Your task to perform on an android device: What is the recent news? Image 0: 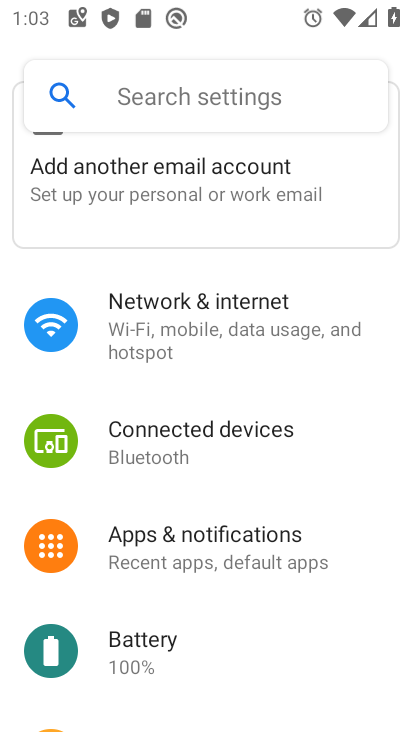
Step 0: press home button
Your task to perform on an android device: What is the recent news? Image 1: 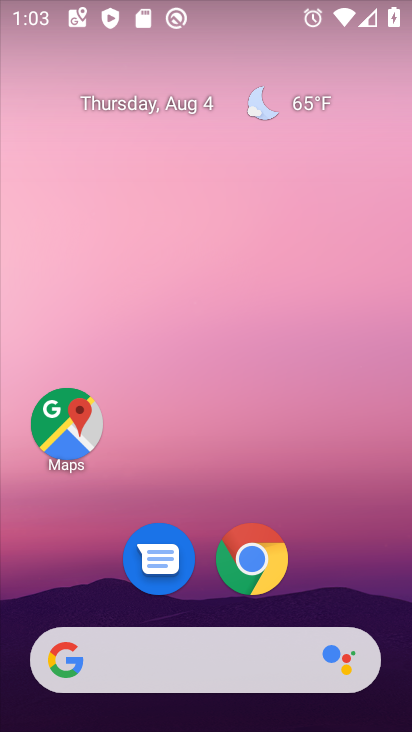
Step 1: drag from (170, 658) to (232, 117)
Your task to perform on an android device: What is the recent news? Image 2: 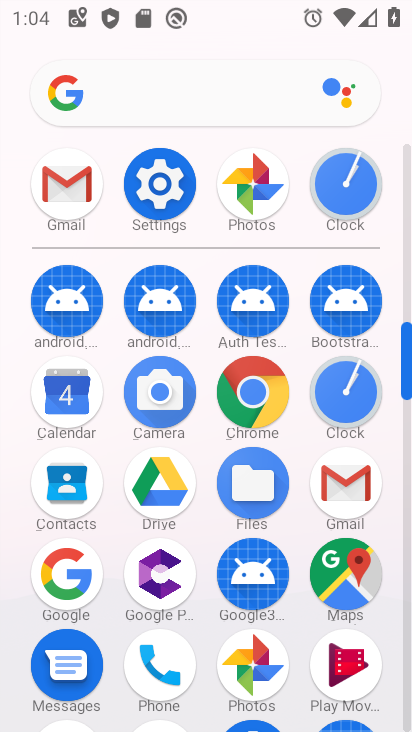
Step 2: click (66, 576)
Your task to perform on an android device: What is the recent news? Image 3: 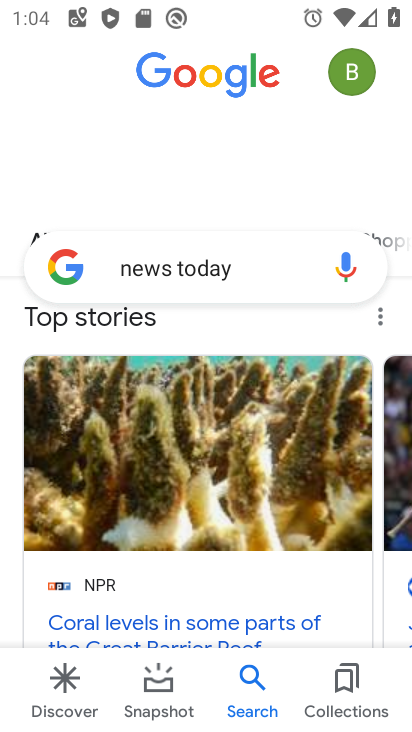
Step 3: click (238, 264)
Your task to perform on an android device: What is the recent news? Image 4: 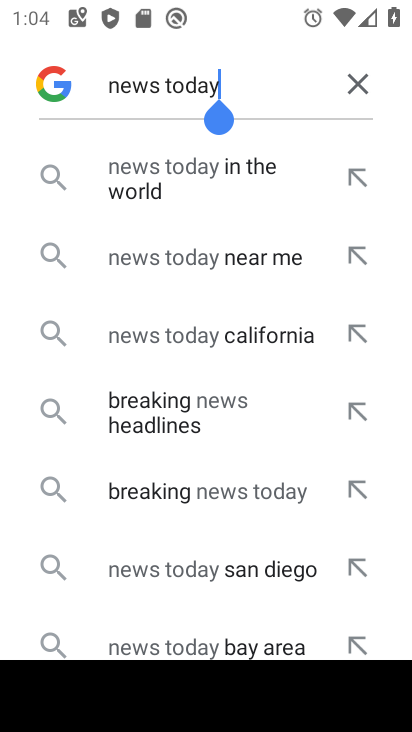
Step 4: click (351, 83)
Your task to perform on an android device: What is the recent news? Image 5: 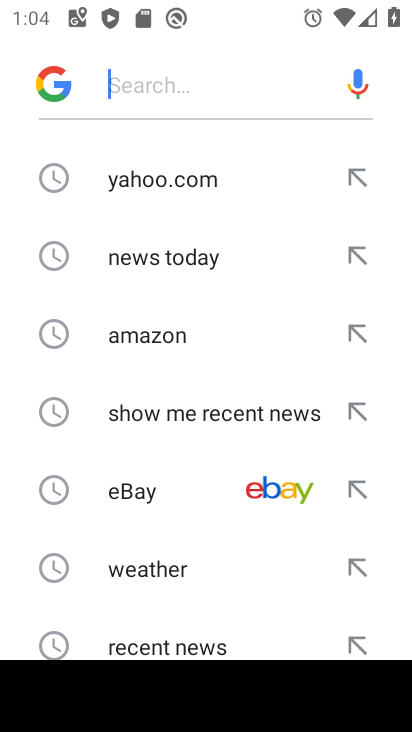
Step 5: type "recent news"
Your task to perform on an android device: What is the recent news? Image 6: 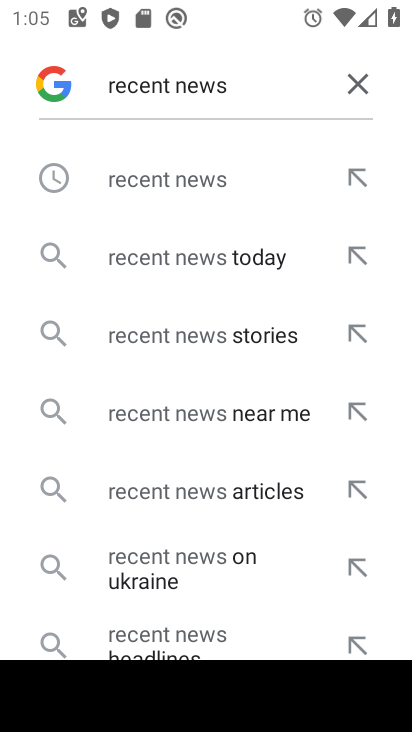
Step 6: click (195, 179)
Your task to perform on an android device: What is the recent news? Image 7: 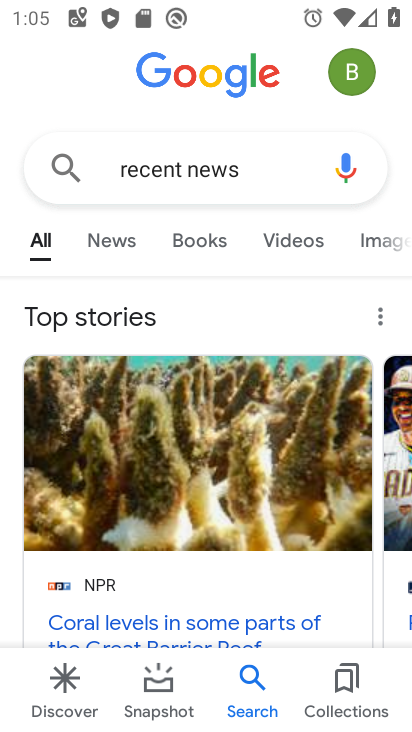
Step 7: click (230, 621)
Your task to perform on an android device: What is the recent news? Image 8: 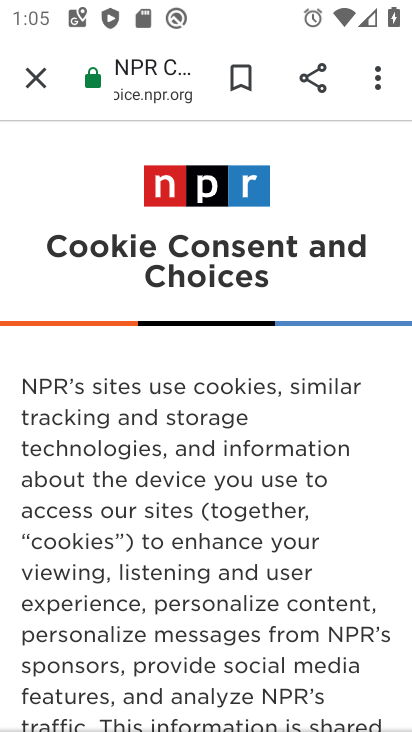
Step 8: task complete